Your task to perform on an android device: open app "eBay: The shopping marketplace" (install if not already installed) Image 0: 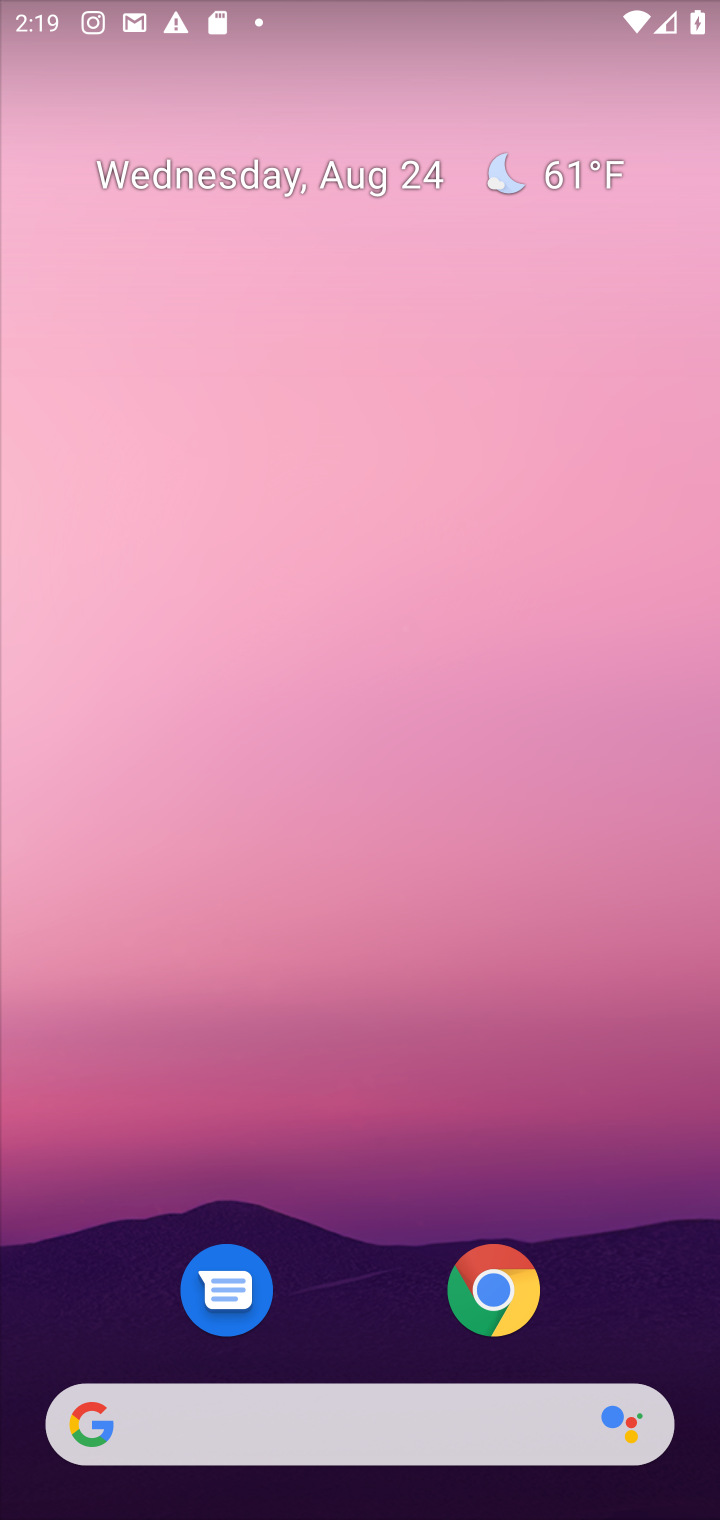
Step 0: drag from (334, 1252) to (308, 71)
Your task to perform on an android device: open app "eBay: The shopping marketplace" (install if not already installed) Image 1: 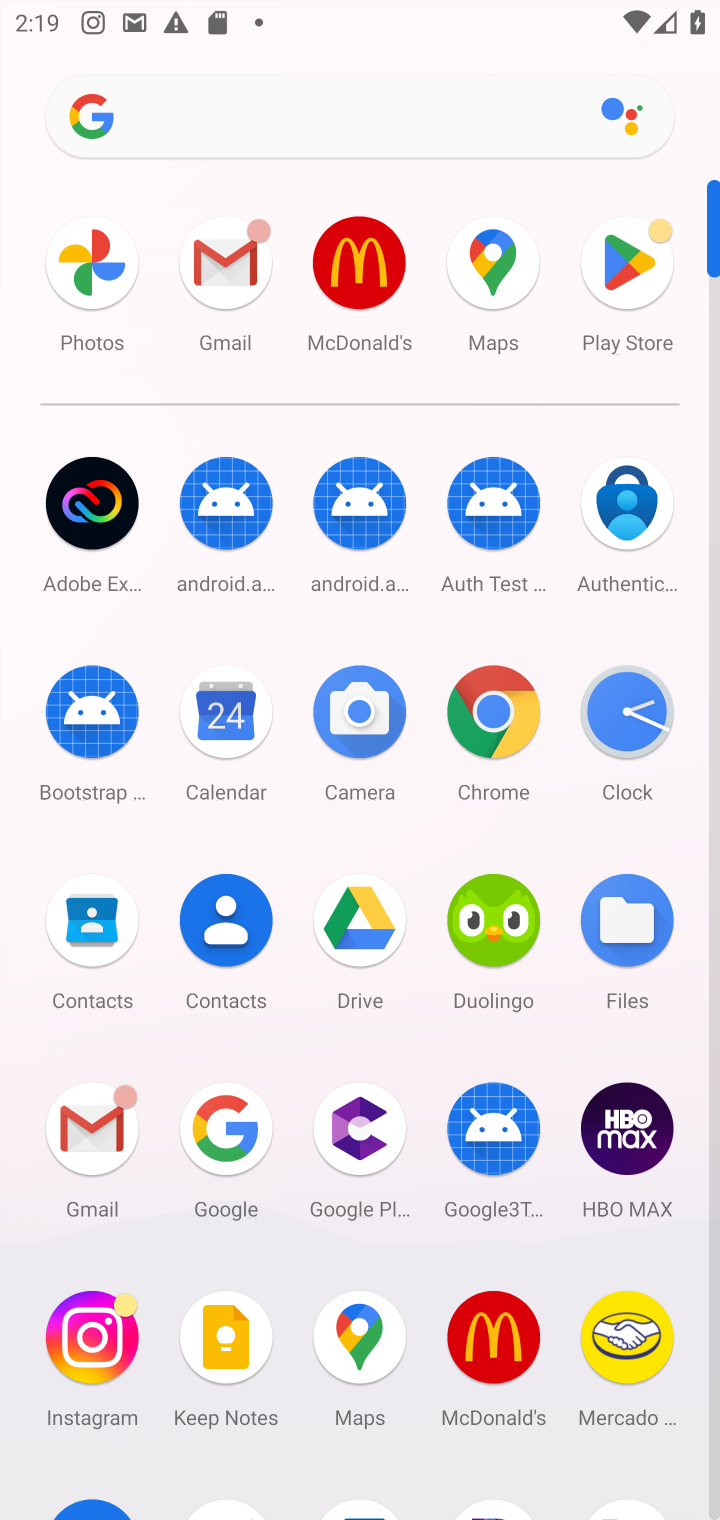
Step 1: click (628, 271)
Your task to perform on an android device: open app "eBay: The shopping marketplace" (install if not already installed) Image 2: 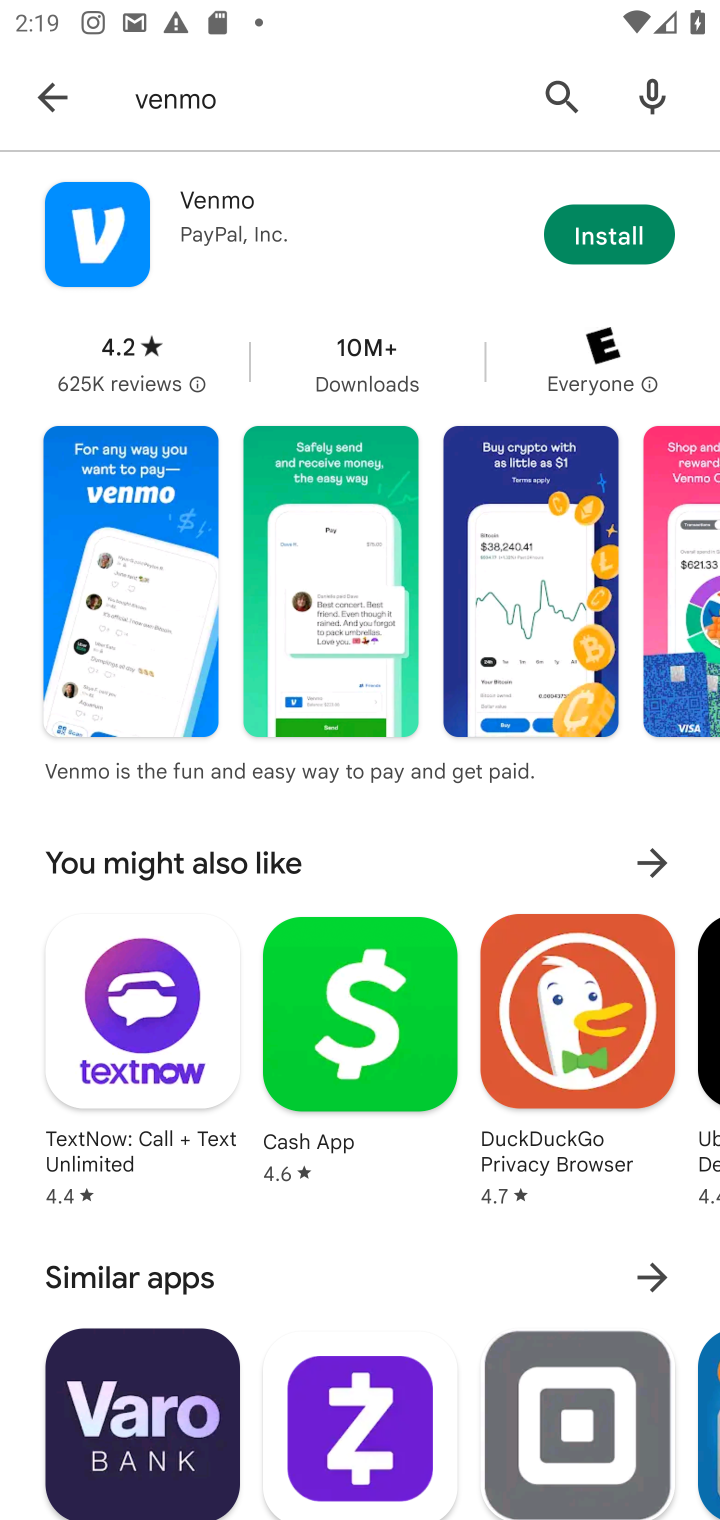
Step 2: click (48, 97)
Your task to perform on an android device: open app "eBay: The shopping marketplace" (install if not already installed) Image 3: 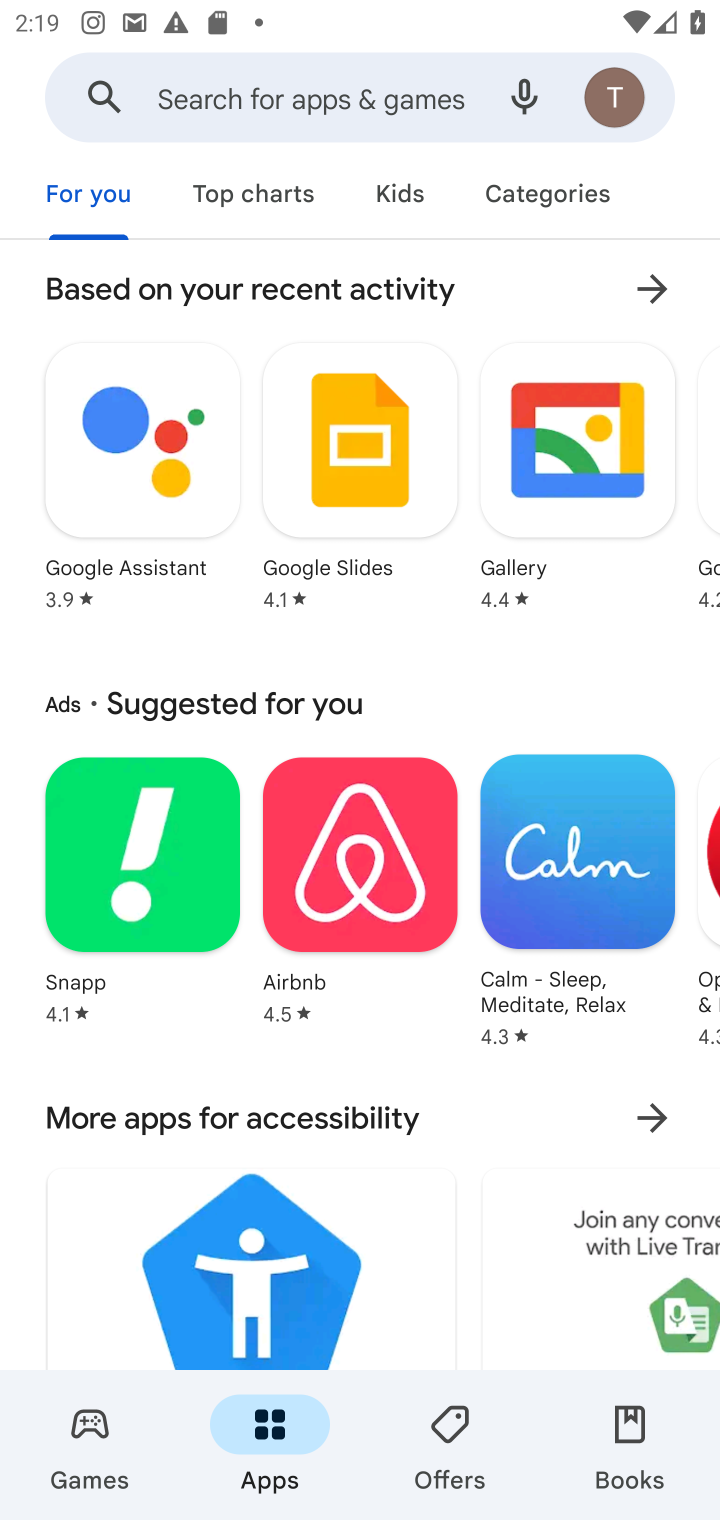
Step 3: click (267, 97)
Your task to perform on an android device: open app "eBay: The shopping marketplace" (install if not already installed) Image 4: 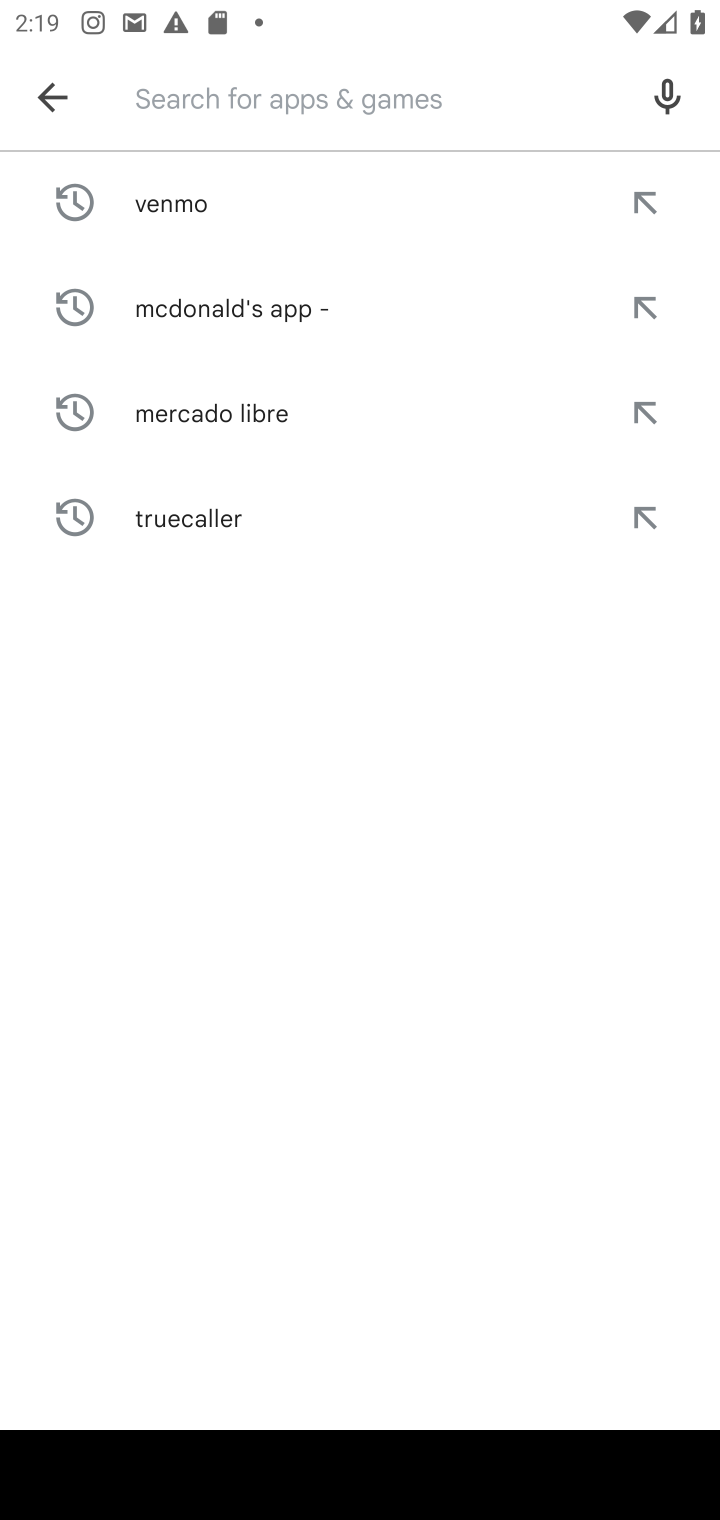
Step 4: type "eBay"
Your task to perform on an android device: open app "eBay: The shopping marketplace" (install if not already installed) Image 5: 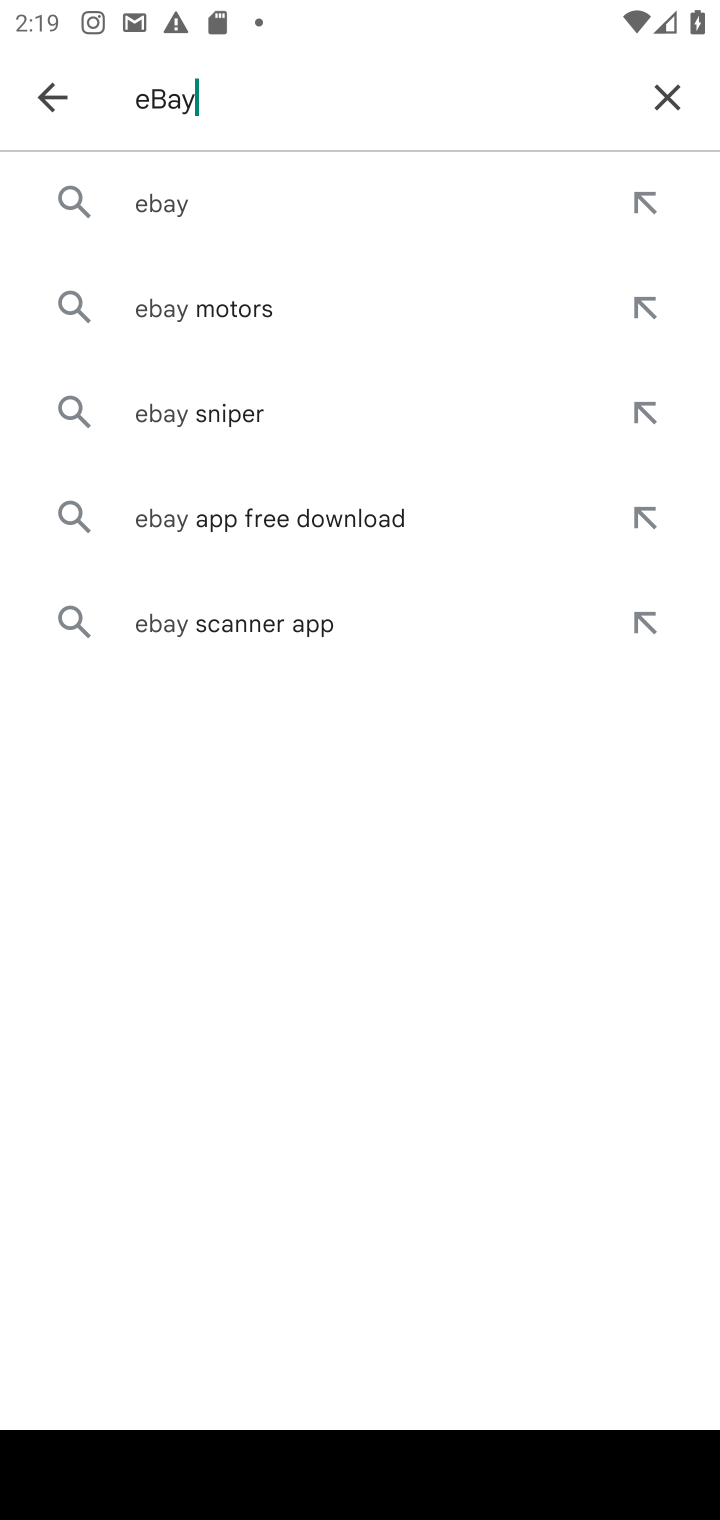
Step 5: click (165, 213)
Your task to perform on an android device: open app "eBay: The shopping marketplace" (install if not already installed) Image 6: 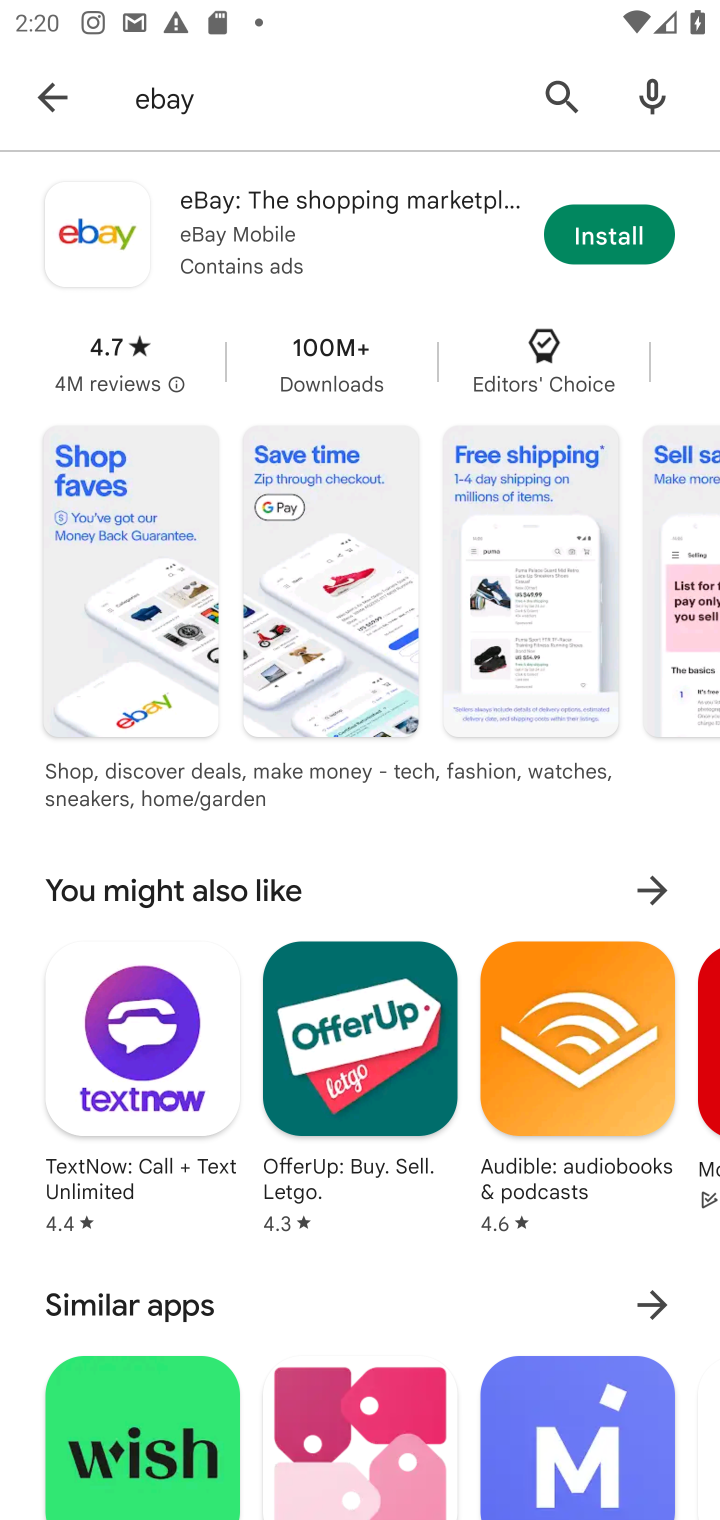
Step 6: click (574, 247)
Your task to perform on an android device: open app "eBay: The shopping marketplace" (install if not already installed) Image 7: 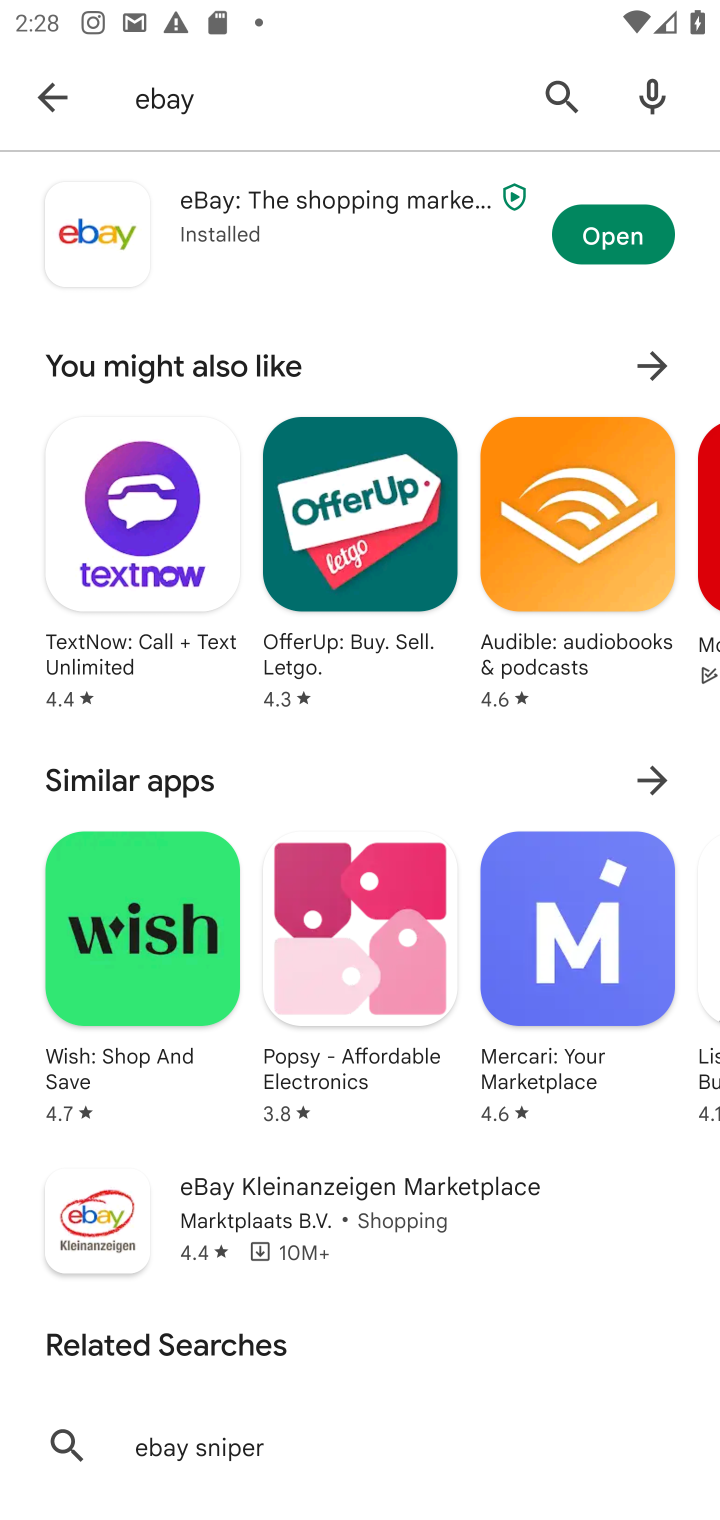
Step 7: click (620, 234)
Your task to perform on an android device: open app "eBay: The shopping marketplace" (install if not already installed) Image 8: 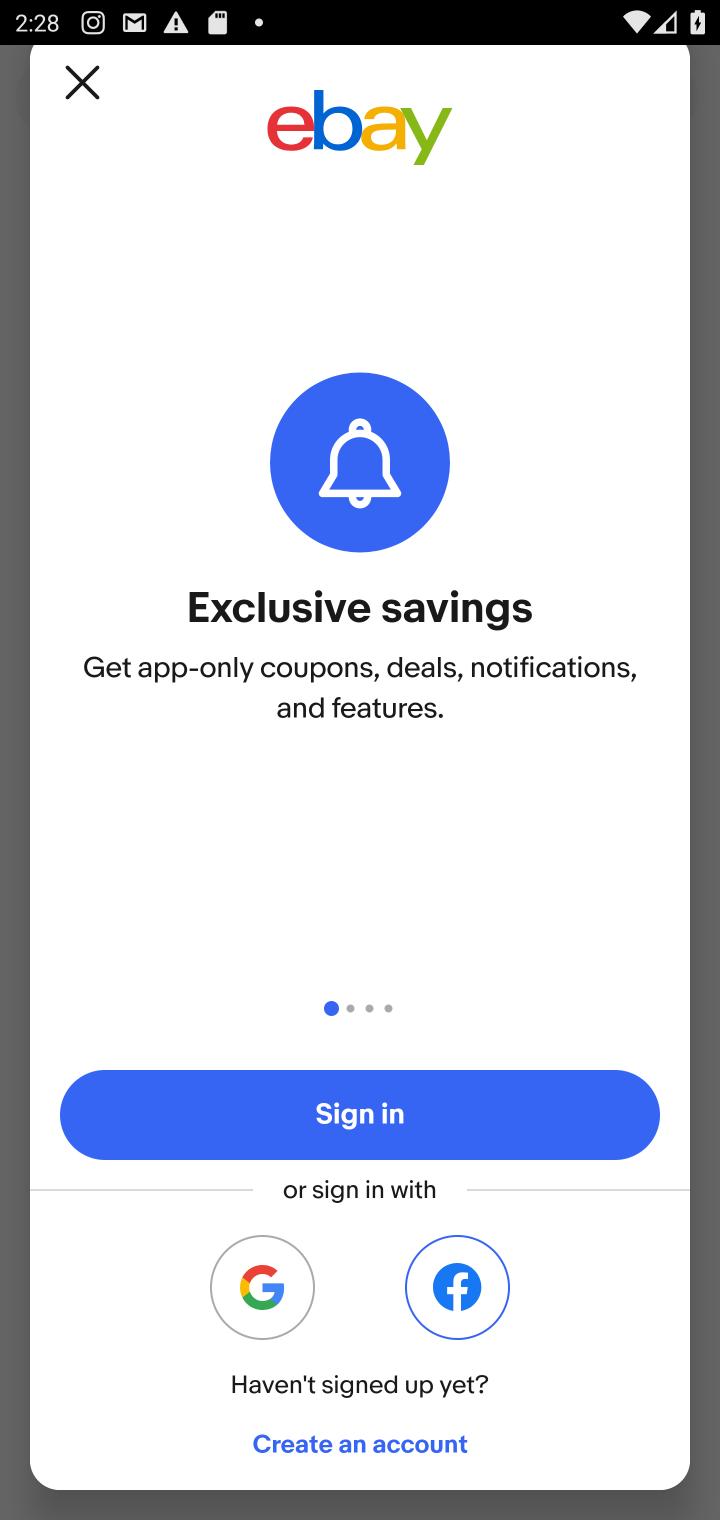
Step 8: task complete